Your task to perform on an android device: toggle location history Image 0: 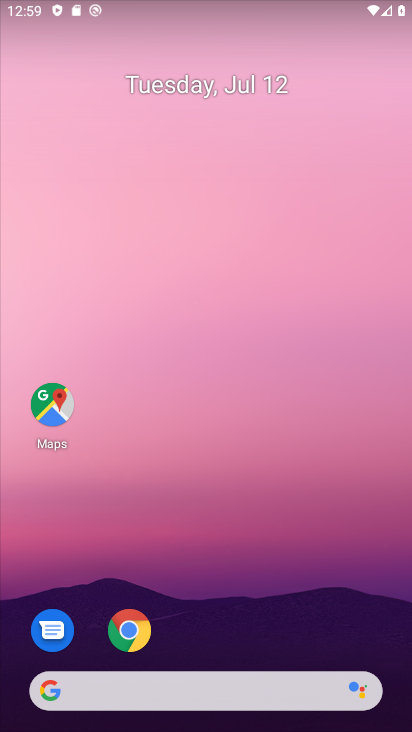
Step 0: click (51, 404)
Your task to perform on an android device: toggle location history Image 1: 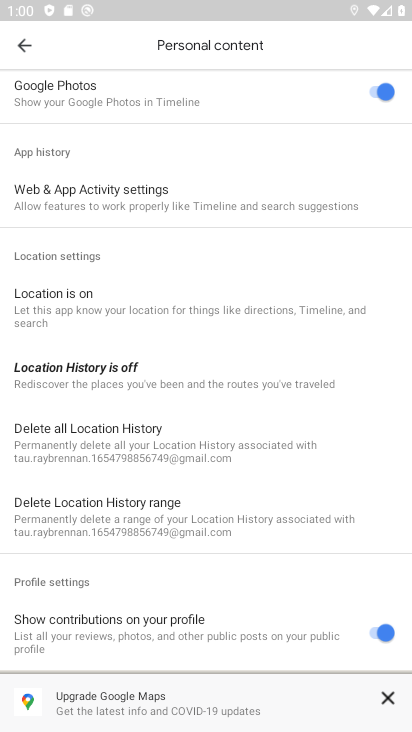
Step 1: click (79, 366)
Your task to perform on an android device: toggle location history Image 2: 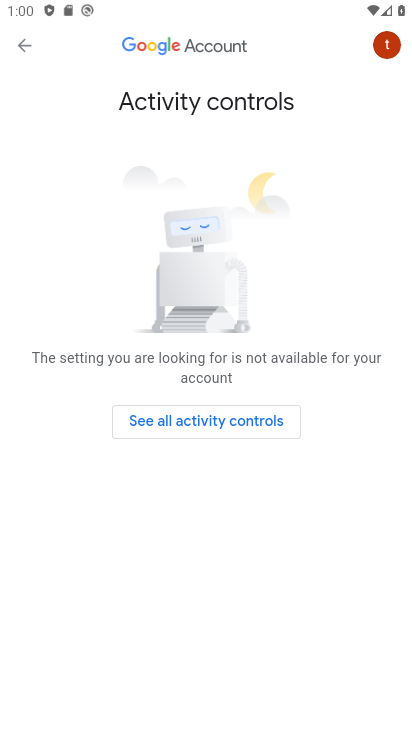
Step 2: click (199, 423)
Your task to perform on an android device: toggle location history Image 3: 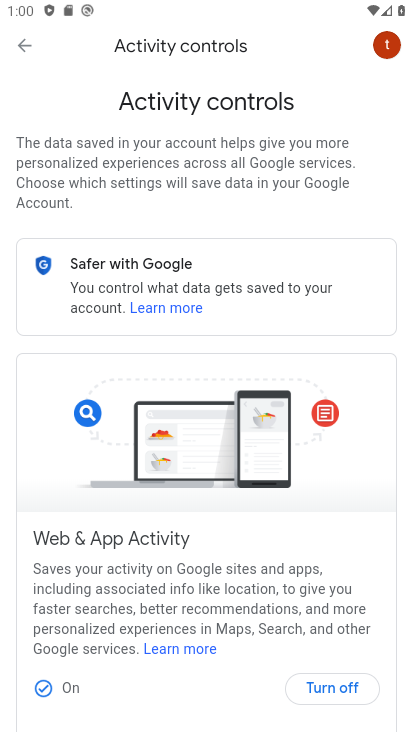
Step 3: click (323, 692)
Your task to perform on an android device: toggle location history Image 4: 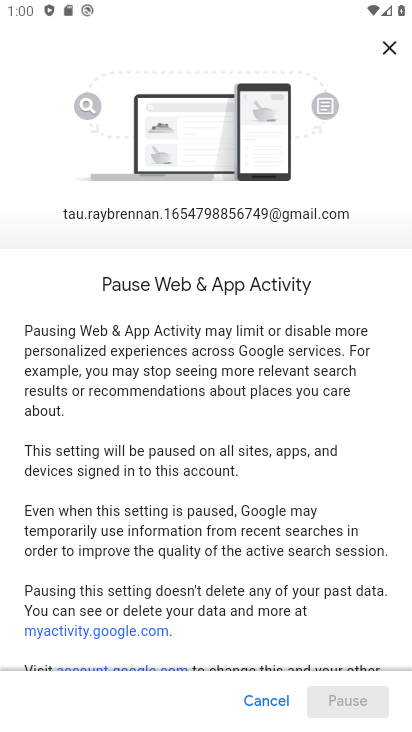
Step 4: drag from (269, 605) to (233, 202)
Your task to perform on an android device: toggle location history Image 5: 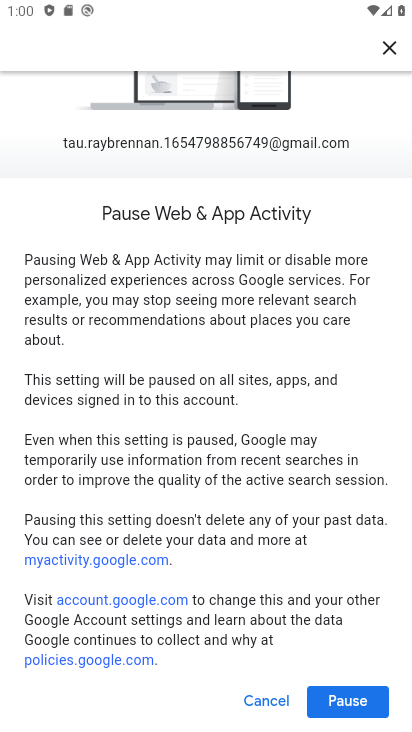
Step 5: click (340, 700)
Your task to perform on an android device: toggle location history Image 6: 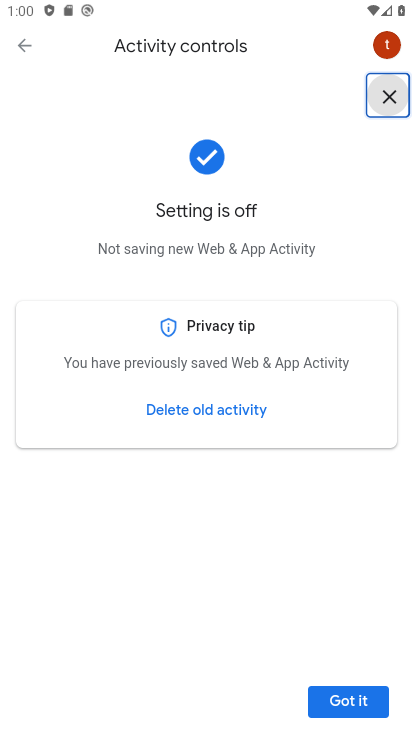
Step 6: click (348, 705)
Your task to perform on an android device: toggle location history Image 7: 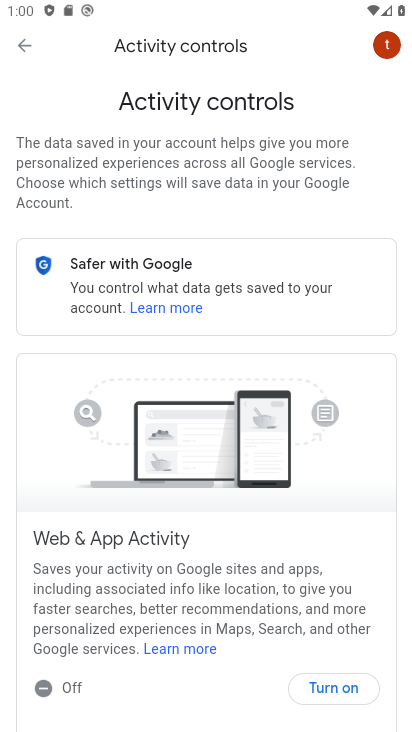
Step 7: task complete